Your task to perform on an android device: Search for sushi restaurants on Maps Image 0: 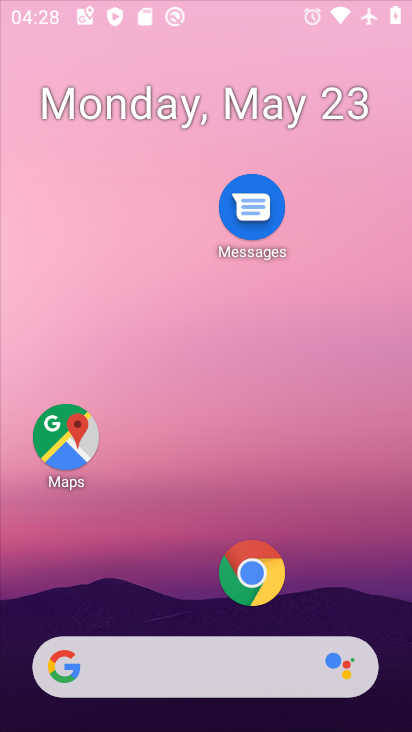
Step 0: drag from (345, 2) to (406, 79)
Your task to perform on an android device: Search for sushi restaurants on Maps Image 1: 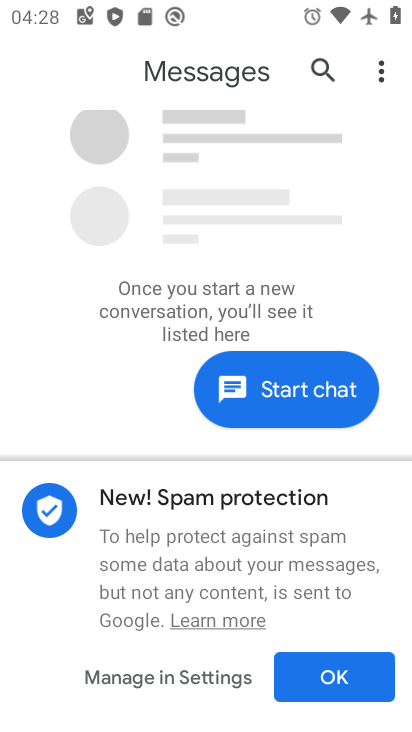
Step 1: press home button
Your task to perform on an android device: Search for sushi restaurants on Maps Image 2: 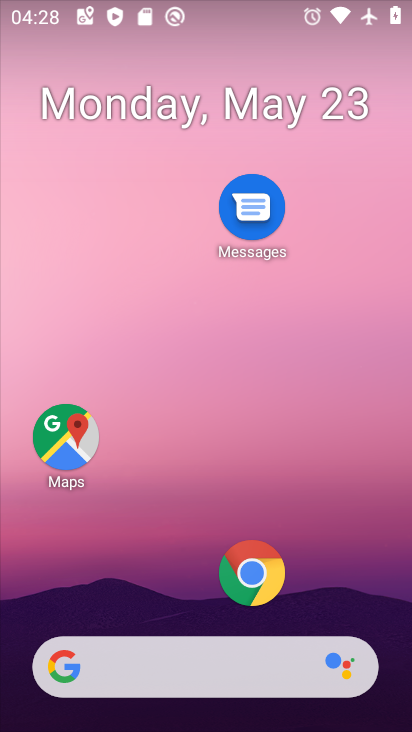
Step 2: drag from (275, 617) to (305, 5)
Your task to perform on an android device: Search for sushi restaurants on Maps Image 3: 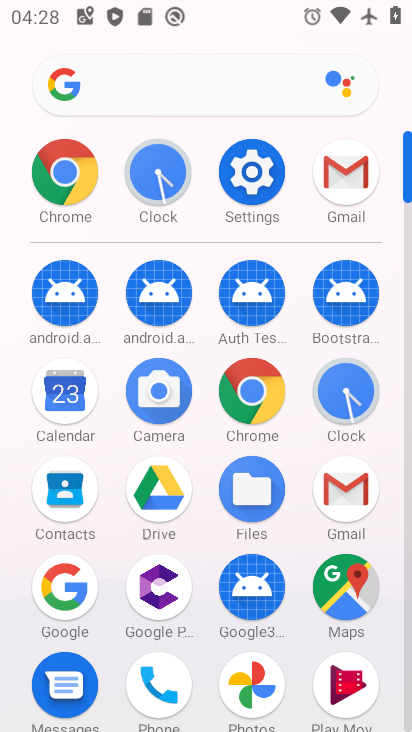
Step 3: click (342, 618)
Your task to perform on an android device: Search for sushi restaurants on Maps Image 4: 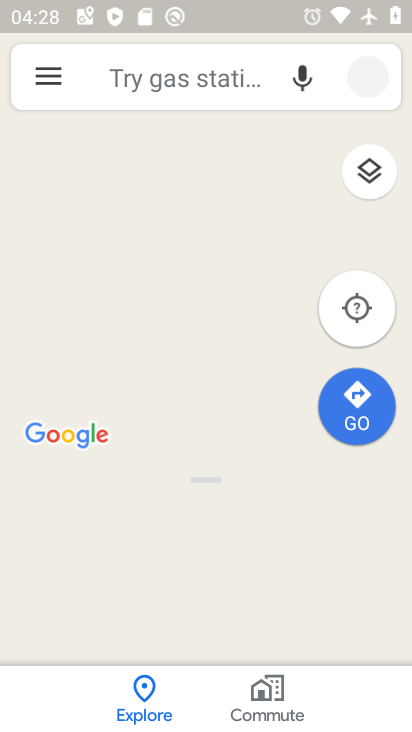
Step 4: click (228, 77)
Your task to perform on an android device: Search for sushi restaurants on Maps Image 5: 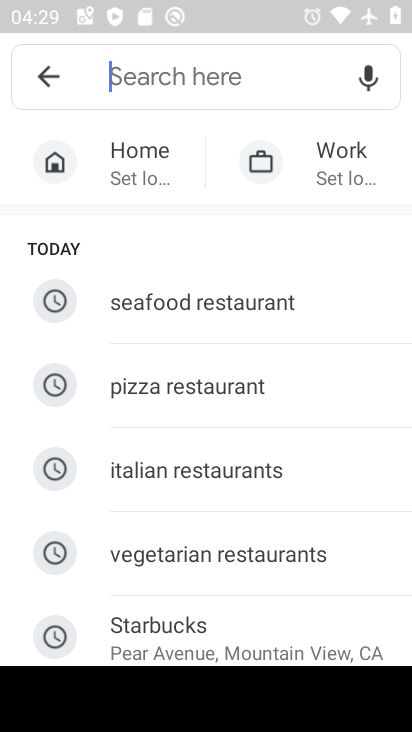
Step 5: type "sushi restaurant"
Your task to perform on an android device: Search for sushi restaurants on Maps Image 6: 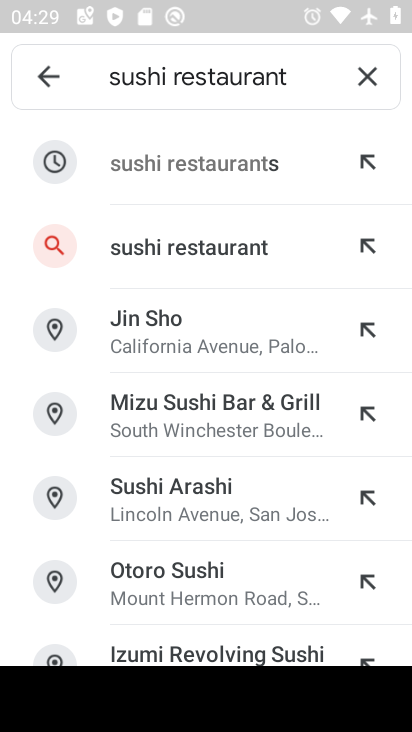
Step 6: click (259, 164)
Your task to perform on an android device: Search for sushi restaurants on Maps Image 7: 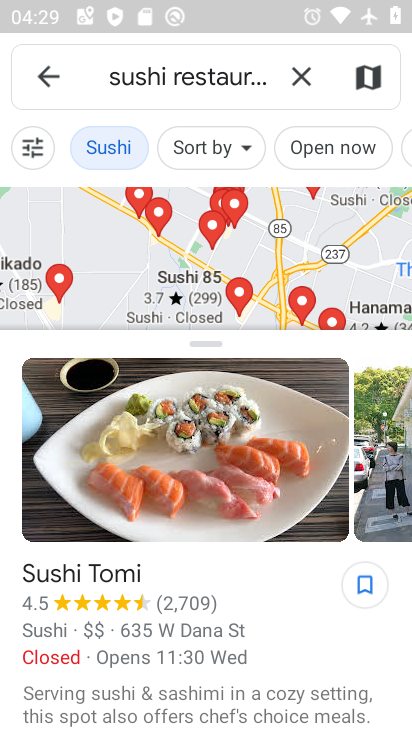
Step 7: task complete